Your task to perform on an android device: What is the recent news? Image 0: 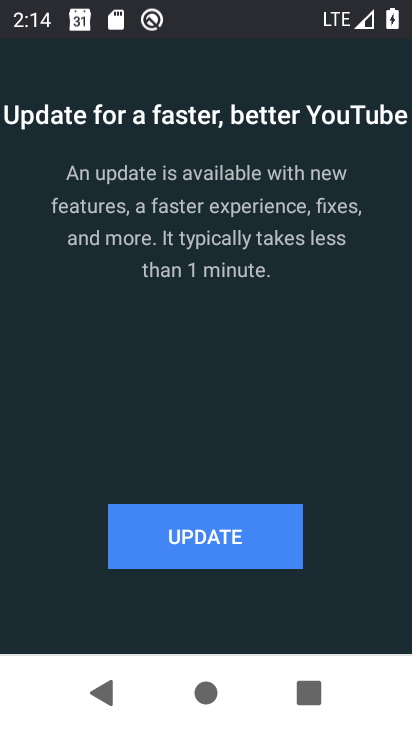
Step 0: press home button
Your task to perform on an android device: What is the recent news? Image 1: 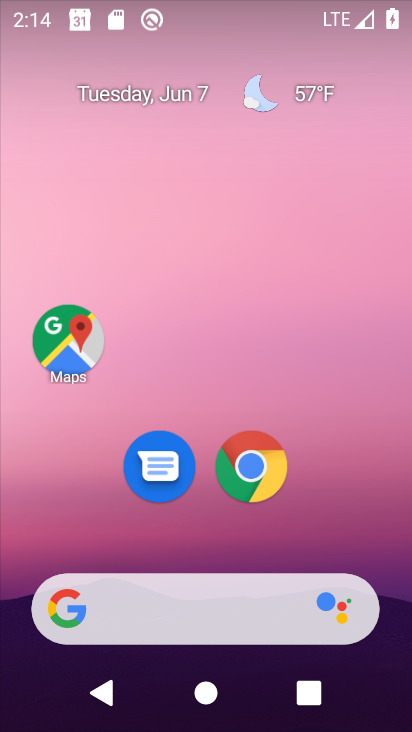
Step 1: click (169, 596)
Your task to perform on an android device: What is the recent news? Image 2: 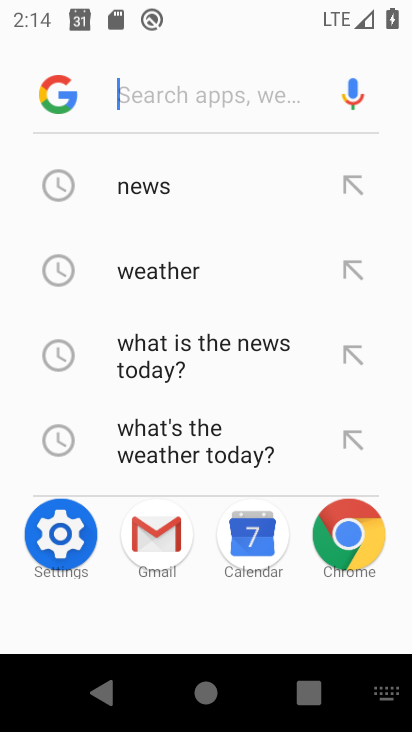
Step 2: click (181, 91)
Your task to perform on an android device: What is the recent news? Image 3: 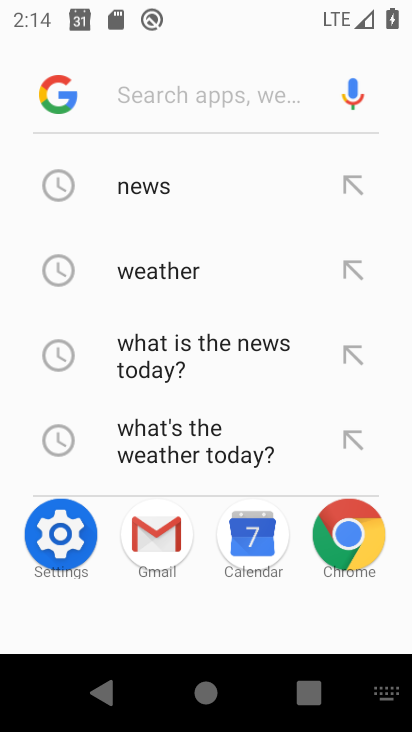
Step 3: type "recent news"
Your task to perform on an android device: What is the recent news? Image 4: 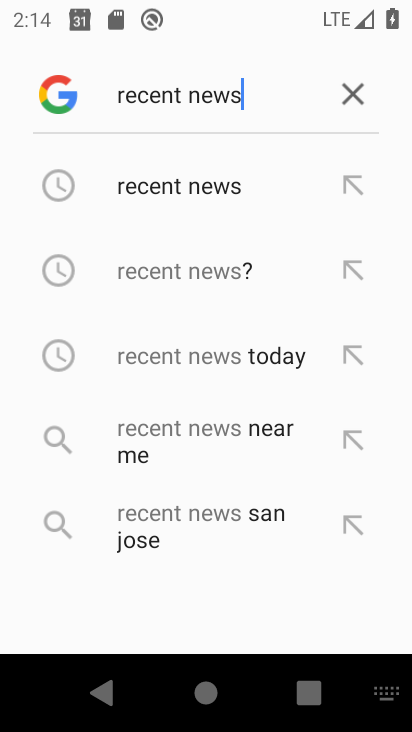
Step 4: click (205, 178)
Your task to perform on an android device: What is the recent news? Image 5: 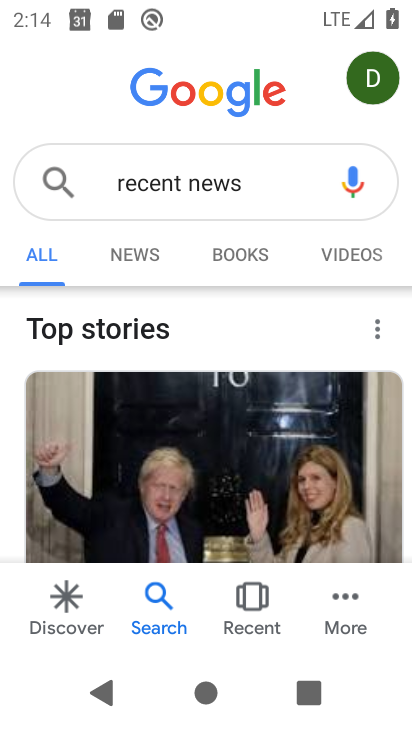
Step 5: task complete